Your task to perform on an android device: star an email in the gmail app Image 0: 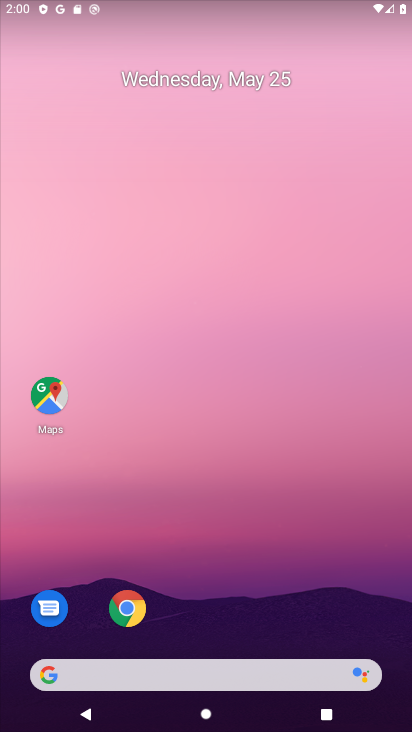
Step 0: drag from (217, 665) to (260, 312)
Your task to perform on an android device: star an email in the gmail app Image 1: 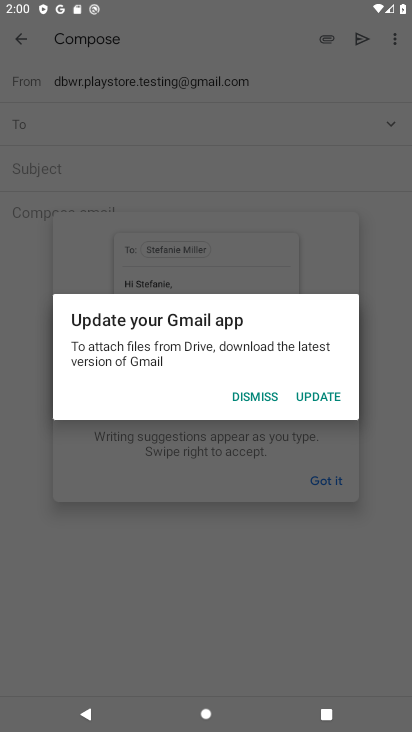
Step 1: click (248, 399)
Your task to perform on an android device: star an email in the gmail app Image 2: 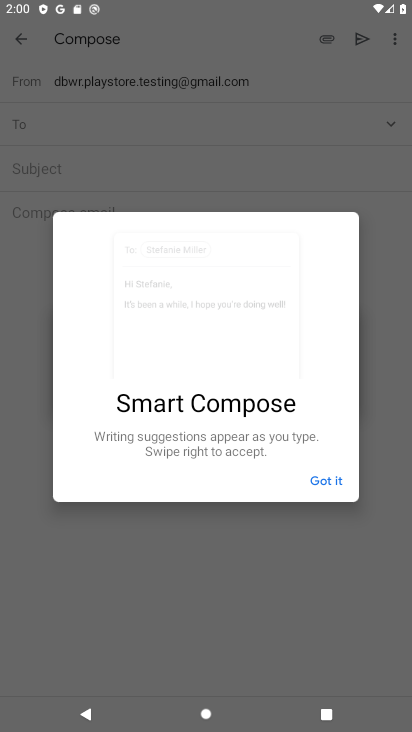
Step 2: click (322, 474)
Your task to perform on an android device: star an email in the gmail app Image 3: 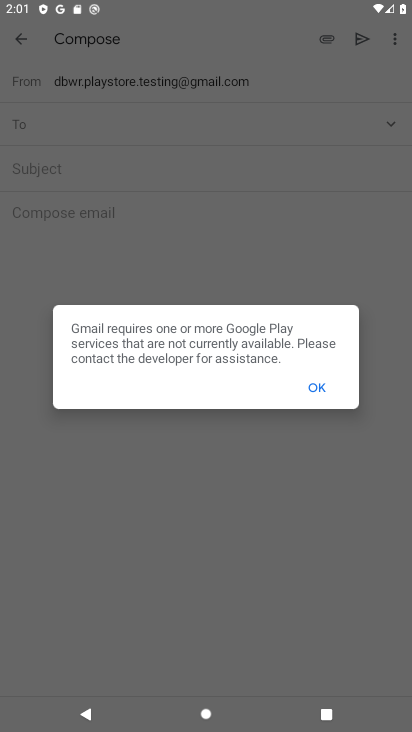
Step 3: click (310, 387)
Your task to perform on an android device: star an email in the gmail app Image 4: 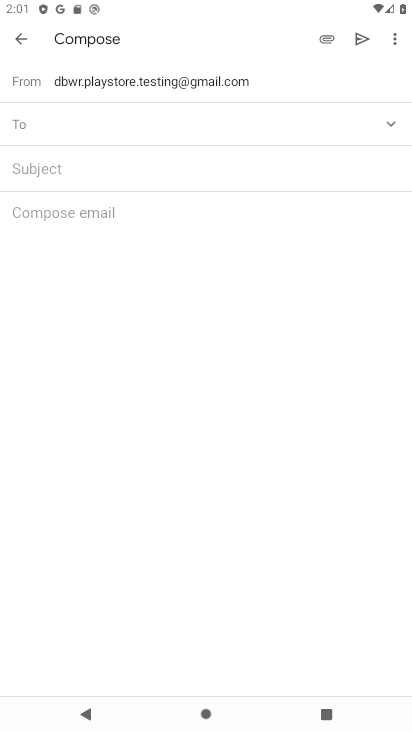
Step 4: click (14, 41)
Your task to perform on an android device: star an email in the gmail app Image 5: 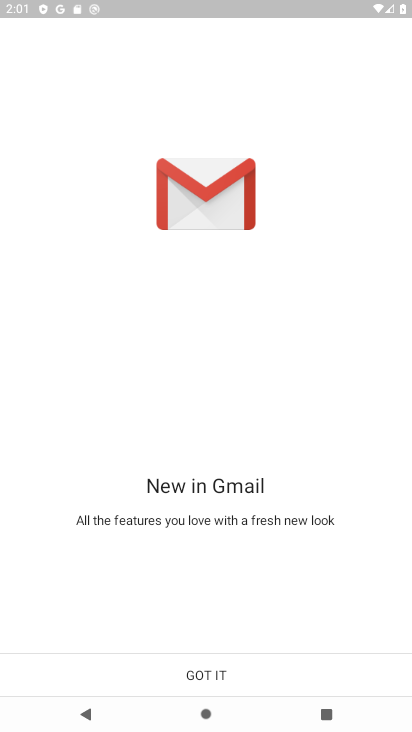
Step 5: click (157, 666)
Your task to perform on an android device: star an email in the gmail app Image 6: 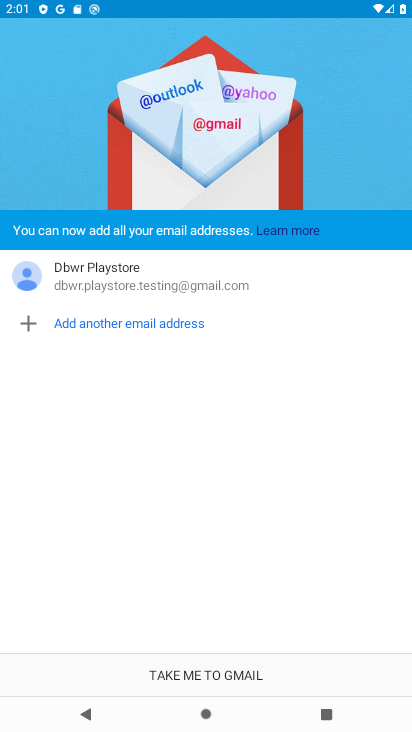
Step 6: click (157, 666)
Your task to perform on an android device: star an email in the gmail app Image 7: 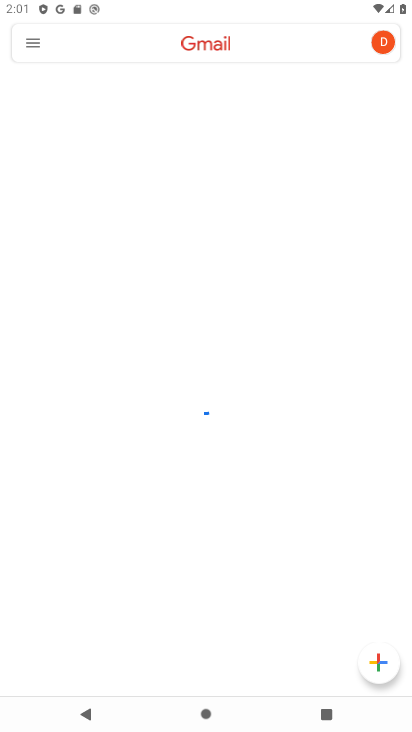
Step 7: click (157, 666)
Your task to perform on an android device: star an email in the gmail app Image 8: 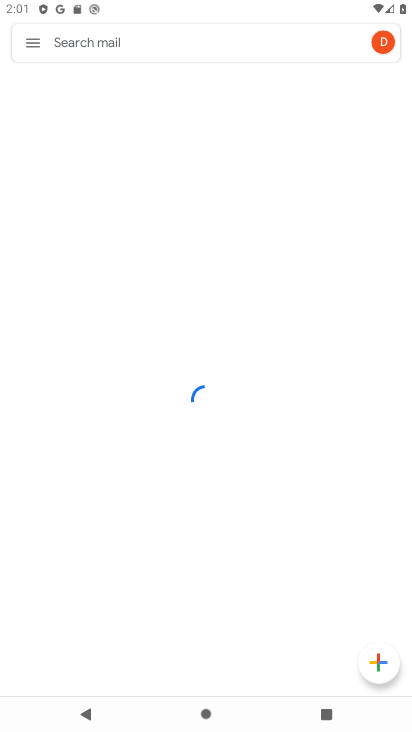
Step 8: task complete